Your task to perform on an android device: turn pop-ups on in chrome Image 0: 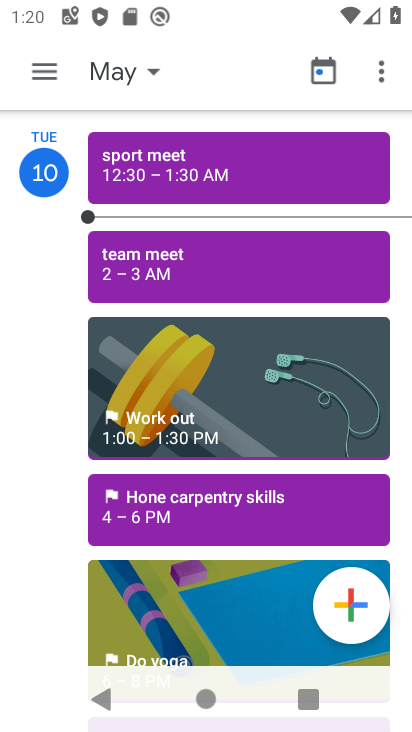
Step 0: press home button
Your task to perform on an android device: turn pop-ups on in chrome Image 1: 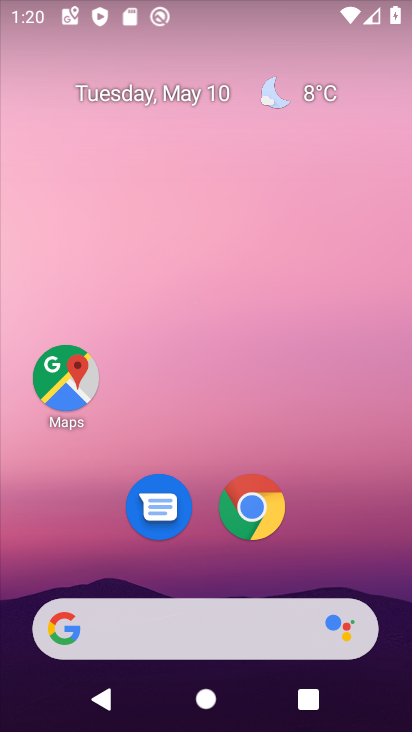
Step 1: drag from (263, 662) to (139, 254)
Your task to perform on an android device: turn pop-ups on in chrome Image 2: 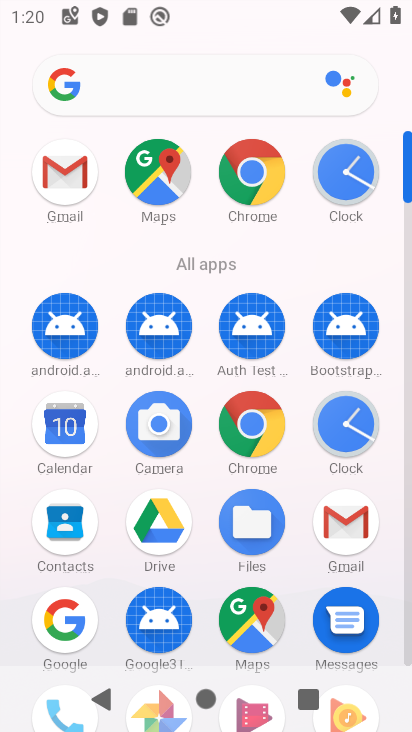
Step 2: drag from (192, 489) to (200, 401)
Your task to perform on an android device: turn pop-ups on in chrome Image 3: 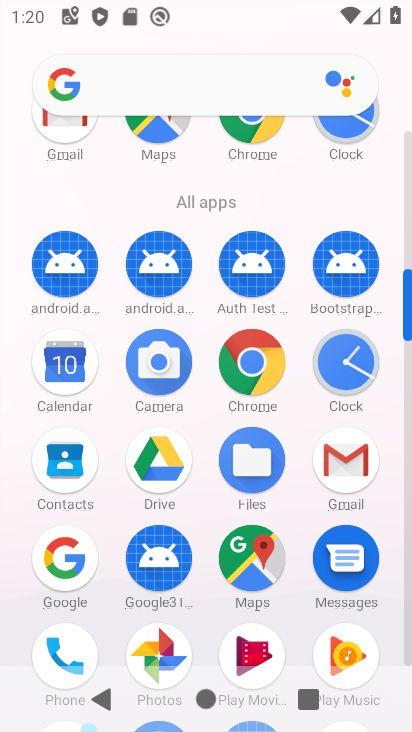
Step 3: drag from (287, 617) to (256, 519)
Your task to perform on an android device: turn pop-ups on in chrome Image 4: 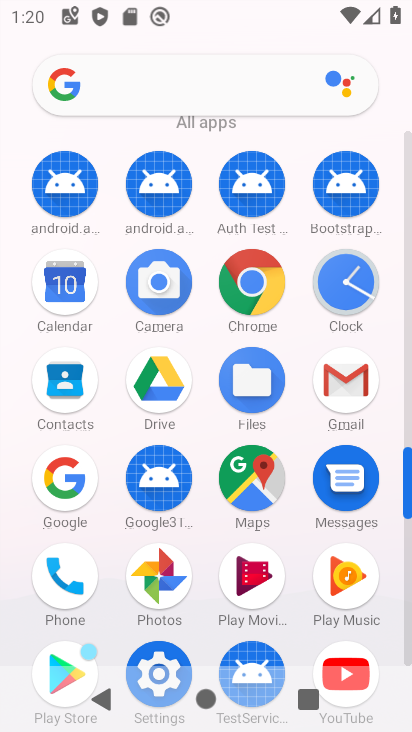
Step 4: click (153, 652)
Your task to perform on an android device: turn pop-ups on in chrome Image 5: 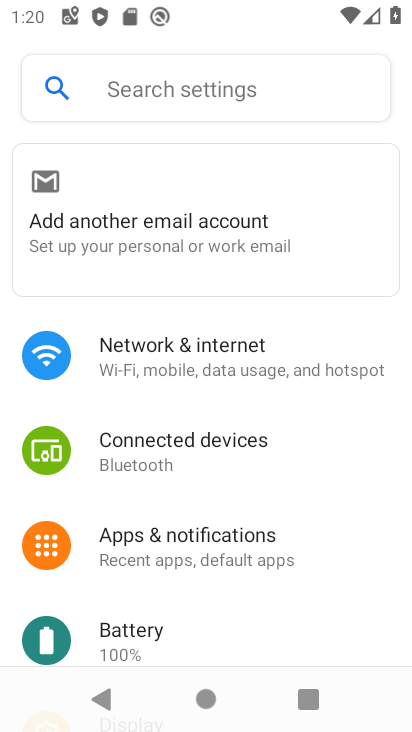
Step 5: press home button
Your task to perform on an android device: turn pop-ups on in chrome Image 6: 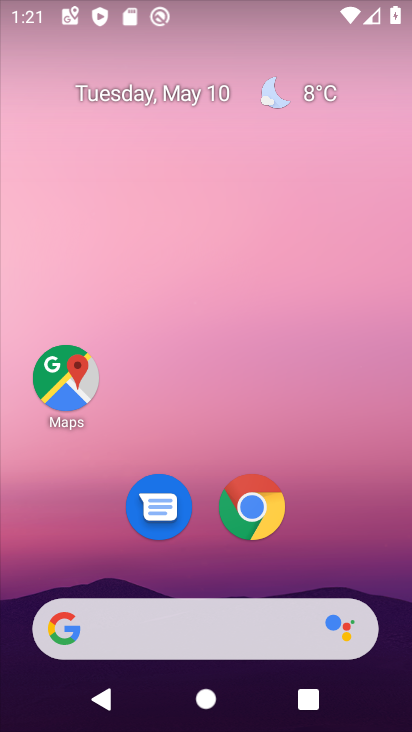
Step 6: drag from (347, 662) to (286, 231)
Your task to perform on an android device: turn pop-ups on in chrome Image 7: 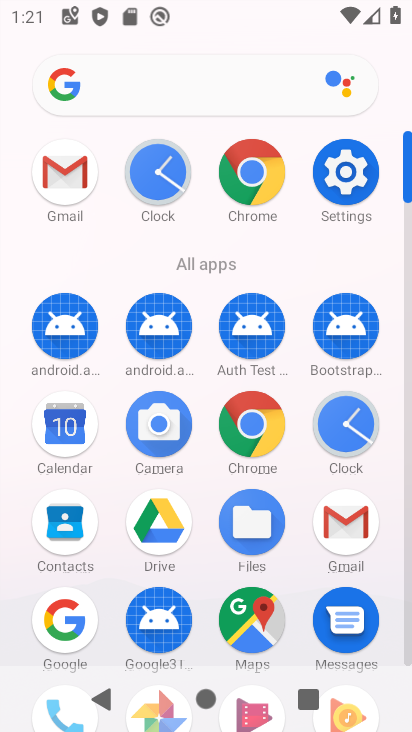
Step 7: click (257, 183)
Your task to perform on an android device: turn pop-ups on in chrome Image 8: 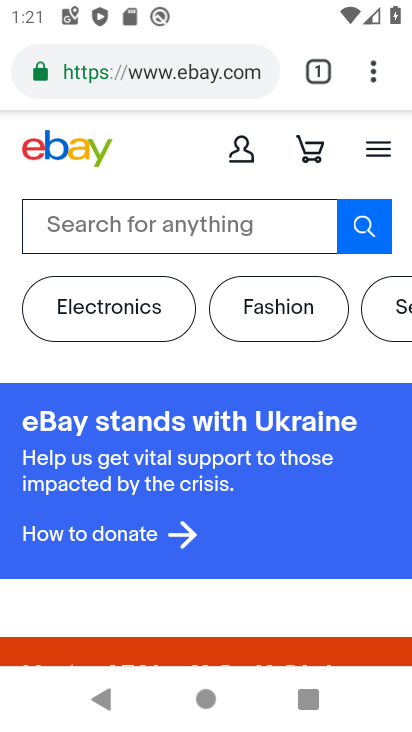
Step 8: click (370, 78)
Your task to perform on an android device: turn pop-ups on in chrome Image 9: 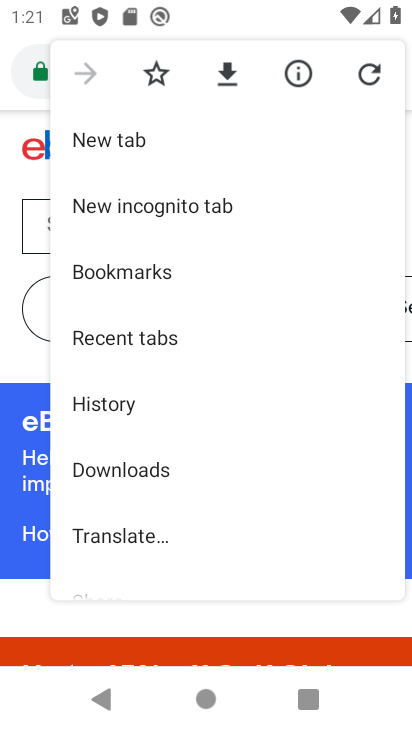
Step 9: drag from (177, 479) to (208, 253)
Your task to perform on an android device: turn pop-ups on in chrome Image 10: 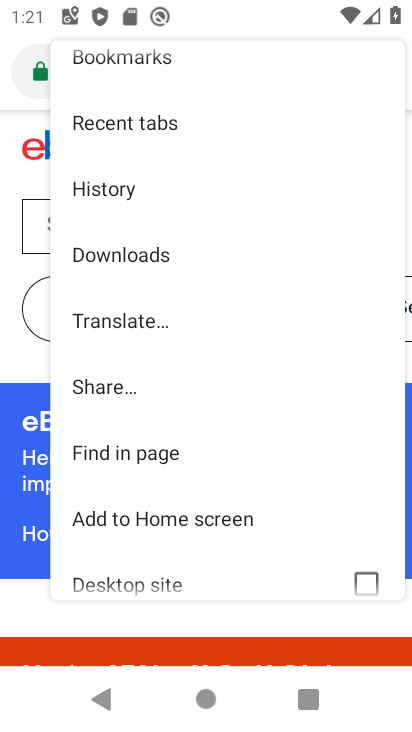
Step 10: drag from (191, 475) to (184, 291)
Your task to perform on an android device: turn pop-ups on in chrome Image 11: 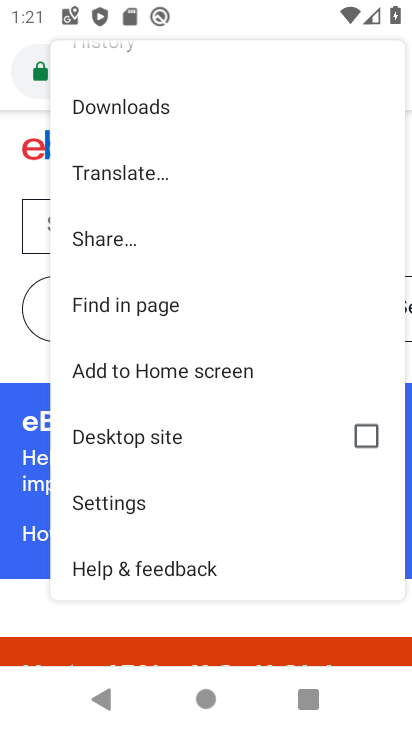
Step 11: click (115, 505)
Your task to perform on an android device: turn pop-ups on in chrome Image 12: 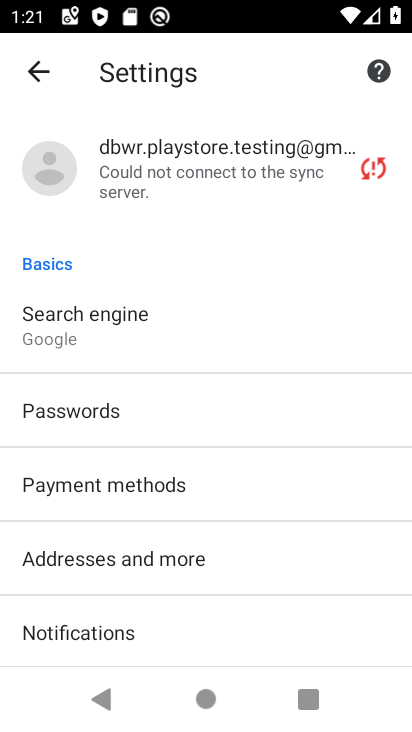
Step 12: drag from (181, 557) to (198, 434)
Your task to perform on an android device: turn pop-ups on in chrome Image 13: 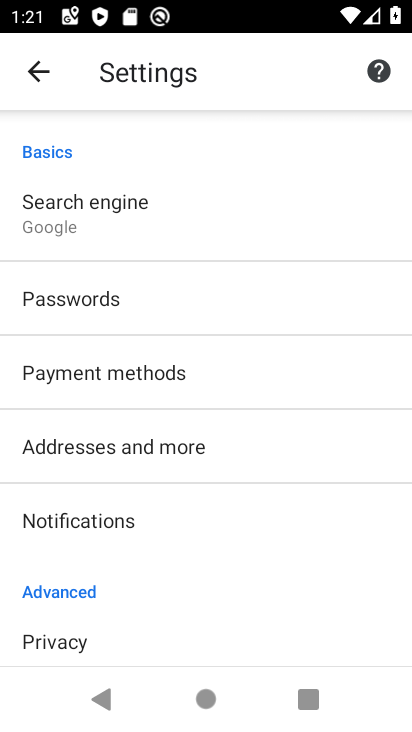
Step 13: drag from (194, 569) to (245, 329)
Your task to perform on an android device: turn pop-ups on in chrome Image 14: 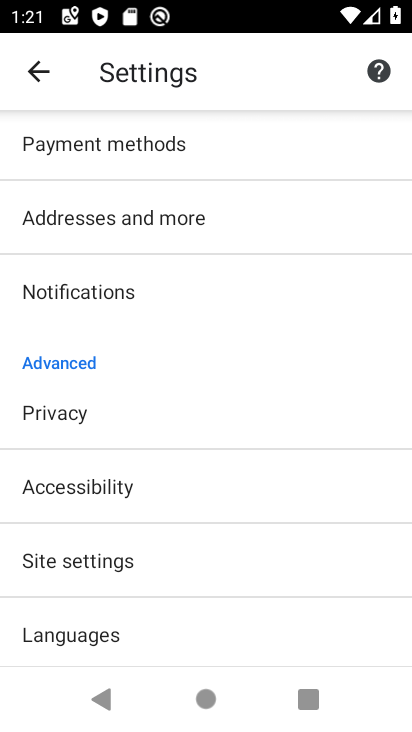
Step 14: click (52, 558)
Your task to perform on an android device: turn pop-ups on in chrome Image 15: 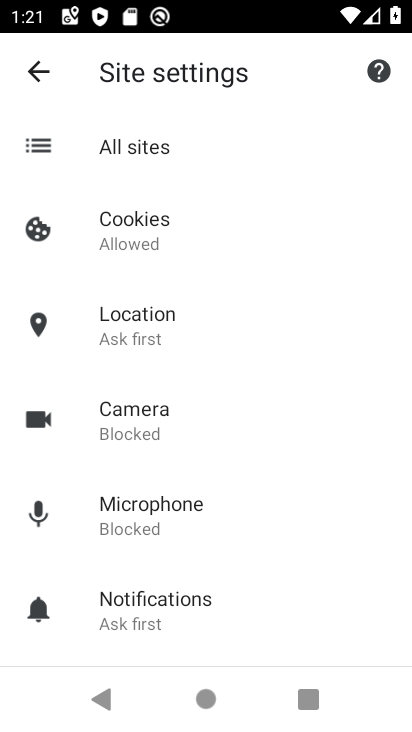
Step 15: drag from (177, 575) to (205, 370)
Your task to perform on an android device: turn pop-ups on in chrome Image 16: 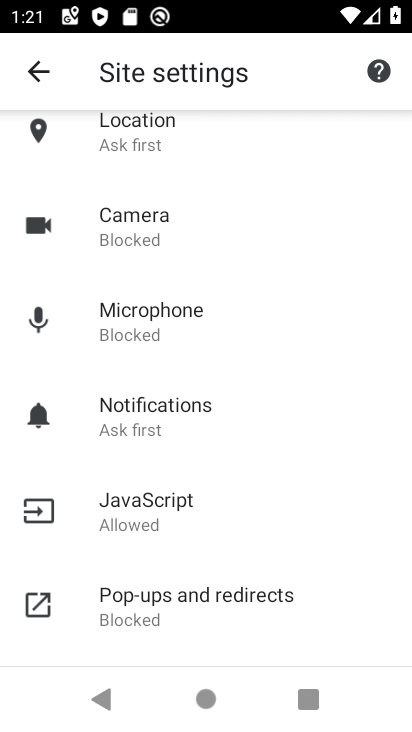
Step 16: click (169, 602)
Your task to perform on an android device: turn pop-ups on in chrome Image 17: 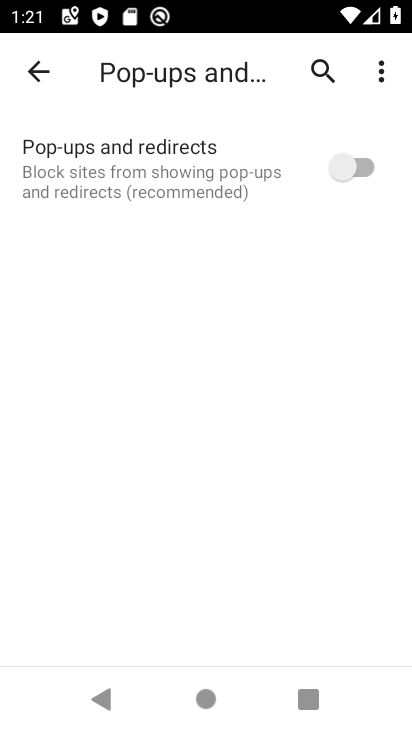
Step 17: click (324, 179)
Your task to perform on an android device: turn pop-ups on in chrome Image 18: 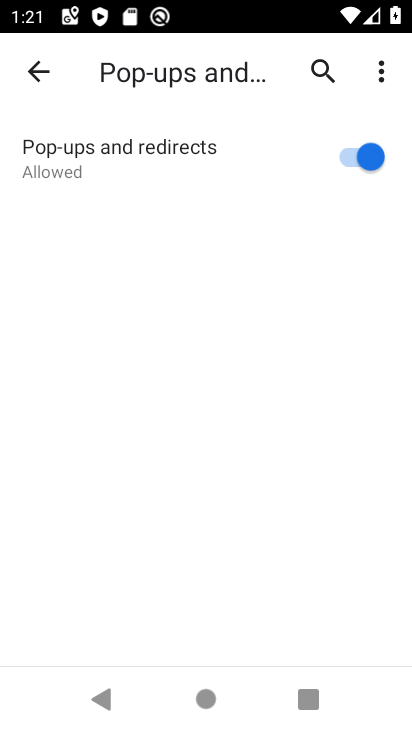
Step 18: task complete